Your task to perform on an android device: Show me the alarms in the clock app Image 0: 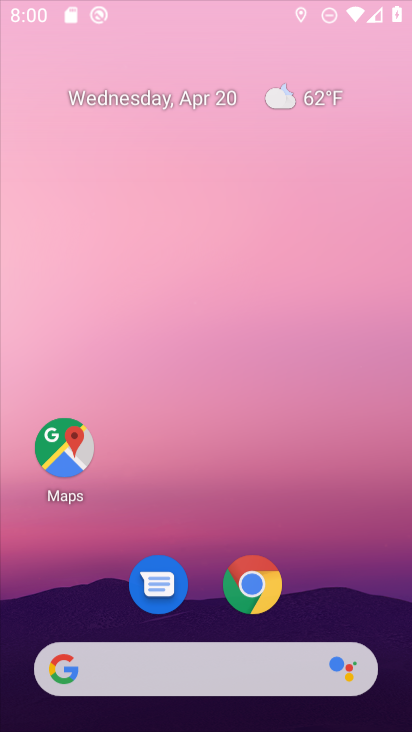
Step 0: click (202, 505)
Your task to perform on an android device: Show me the alarms in the clock app Image 1: 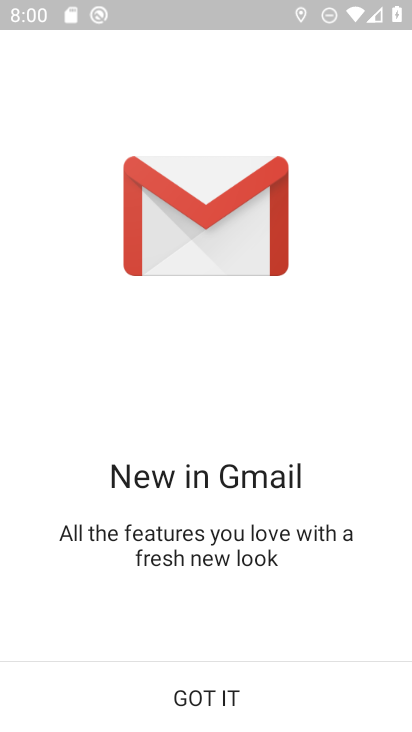
Step 1: drag from (348, 537) to (411, 192)
Your task to perform on an android device: Show me the alarms in the clock app Image 2: 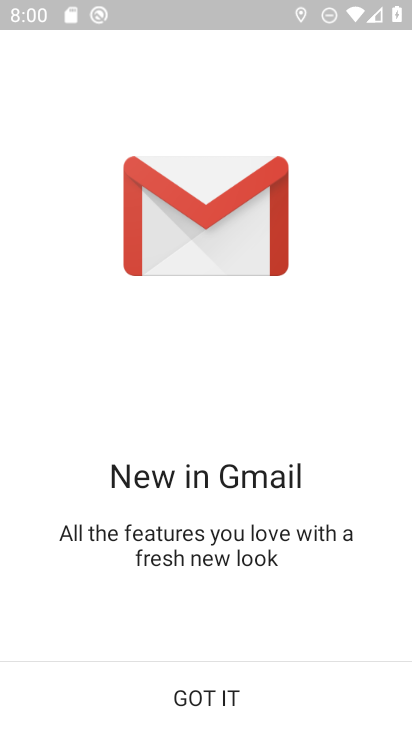
Step 2: press home button
Your task to perform on an android device: Show me the alarms in the clock app Image 3: 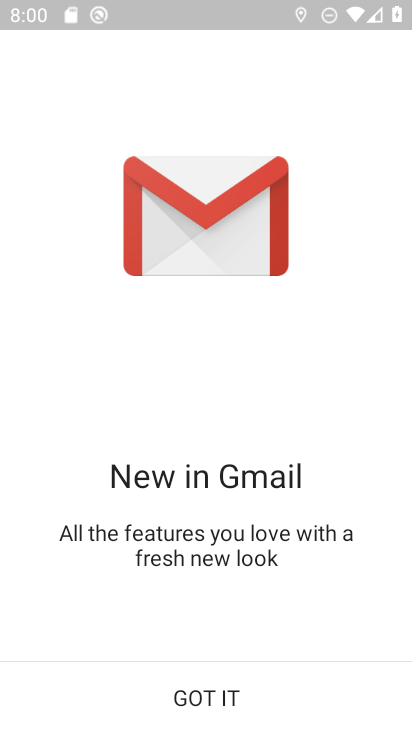
Step 3: drag from (411, 192) to (407, 281)
Your task to perform on an android device: Show me the alarms in the clock app Image 4: 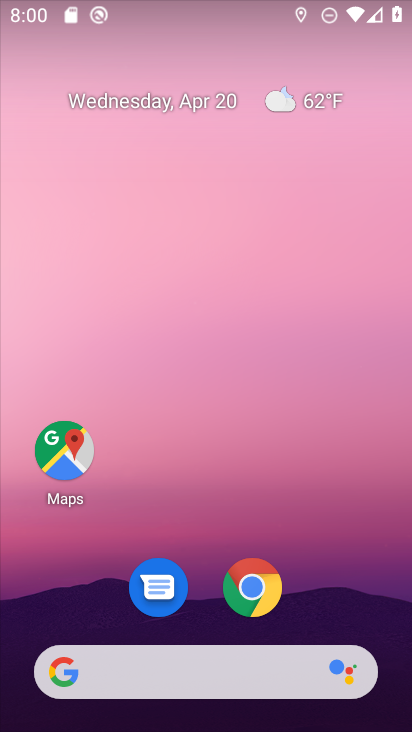
Step 4: drag from (332, 540) to (312, 28)
Your task to perform on an android device: Show me the alarms in the clock app Image 5: 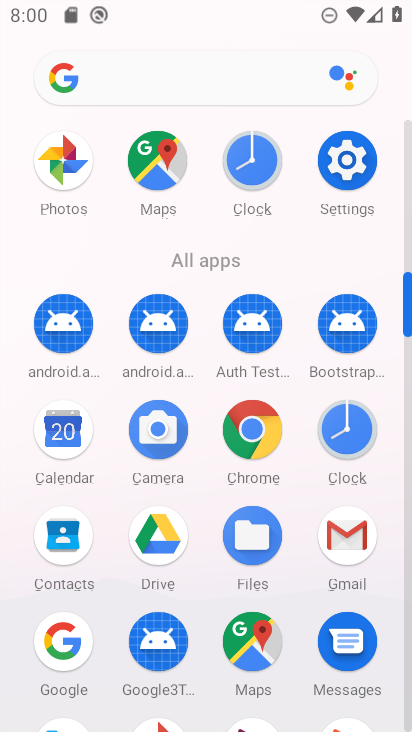
Step 5: click (265, 153)
Your task to perform on an android device: Show me the alarms in the clock app Image 6: 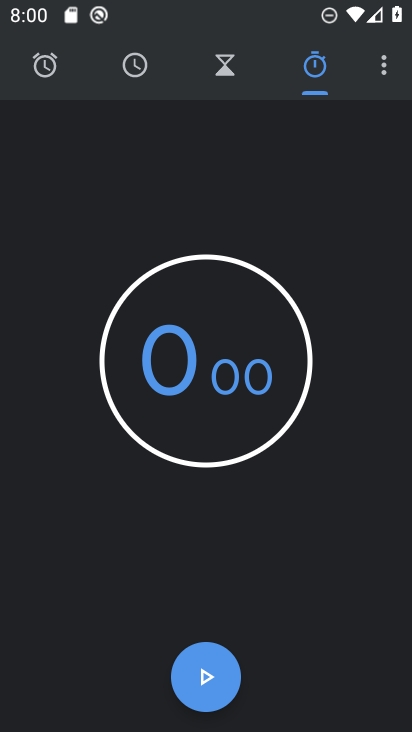
Step 6: click (61, 62)
Your task to perform on an android device: Show me the alarms in the clock app Image 7: 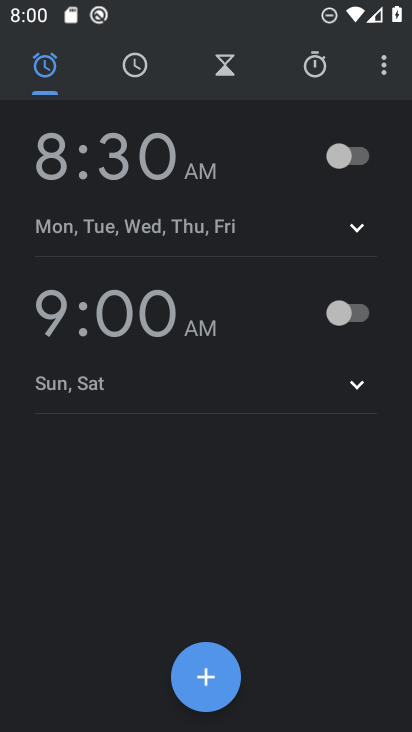
Step 7: task complete